Your task to perform on an android device: toggle priority inbox in the gmail app Image 0: 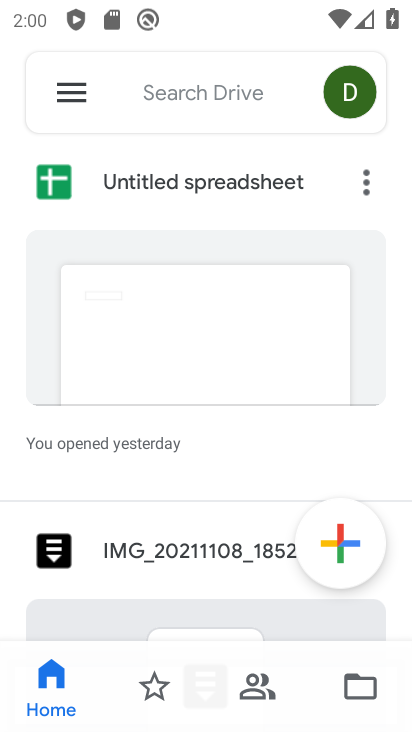
Step 0: press home button
Your task to perform on an android device: toggle priority inbox in the gmail app Image 1: 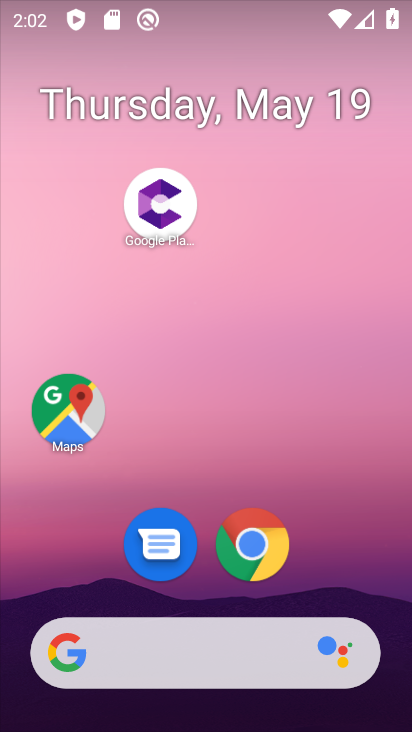
Step 1: drag from (231, 671) to (263, 300)
Your task to perform on an android device: toggle priority inbox in the gmail app Image 2: 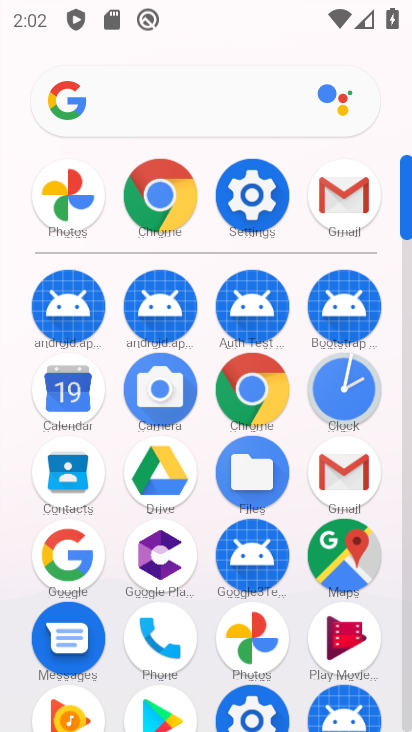
Step 2: click (359, 489)
Your task to perform on an android device: toggle priority inbox in the gmail app Image 3: 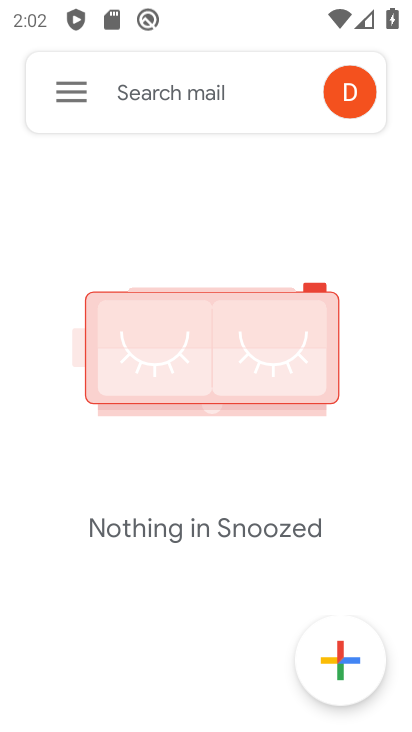
Step 3: click (92, 83)
Your task to perform on an android device: toggle priority inbox in the gmail app Image 4: 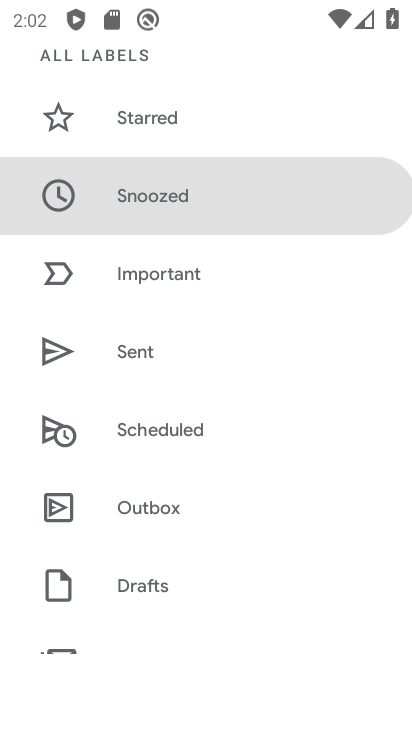
Step 4: drag from (194, 537) to (267, 172)
Your task to perform on an android device: toggle priority inbox in the gmail app Image 5: 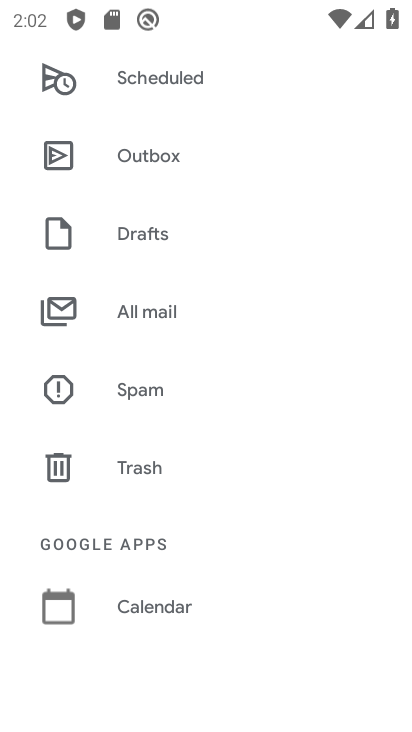
Step 5: drag from (188, 511) to (275, 189)
Your task to perform on an android device: toggle priority inbox in the gmail app Image 6: 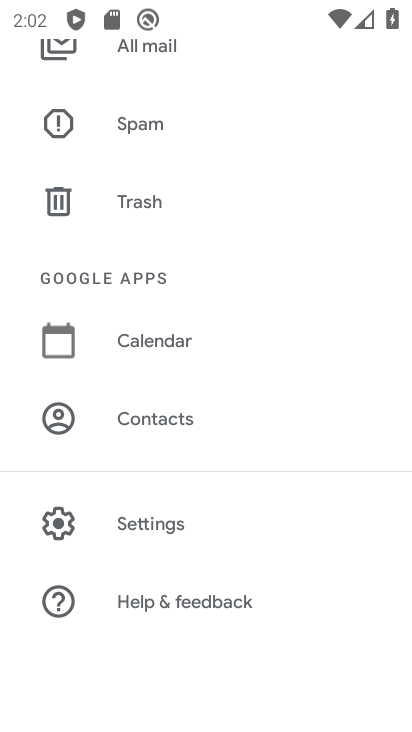
Step 6: click (148, 521)
Your task to perform on an android device: toggle priority inbox in the gmail app Image 7: 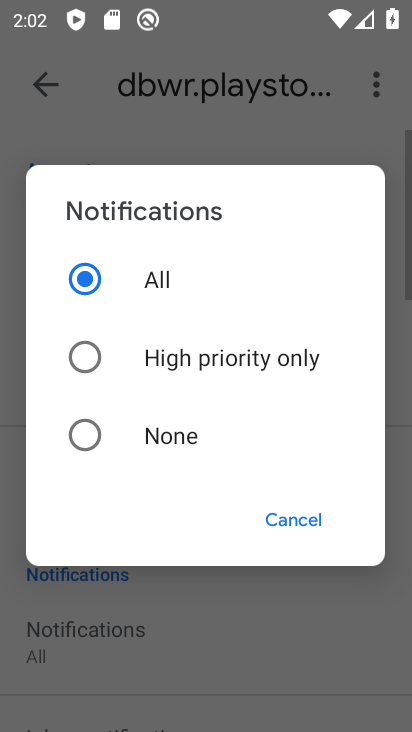
Step 7: click (277, 522)
Your task to perform on an android device: toggle priority inbox in the gmail app Image 8: 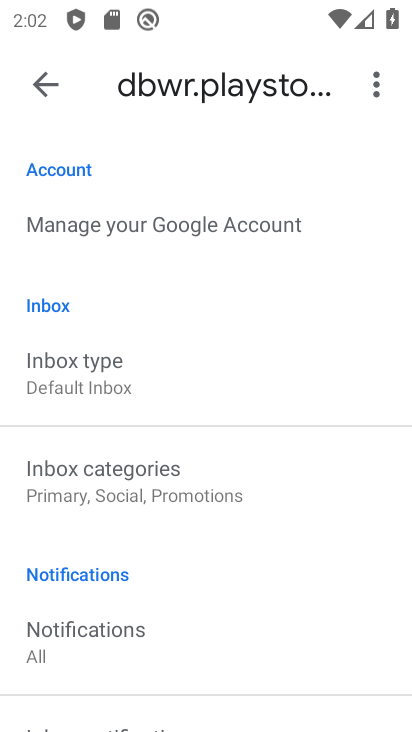
Step 8: drag from (253, 548) to (339, 205)
Your task to perform on an android device: toggle priority inbox in the gmail app Image 9: 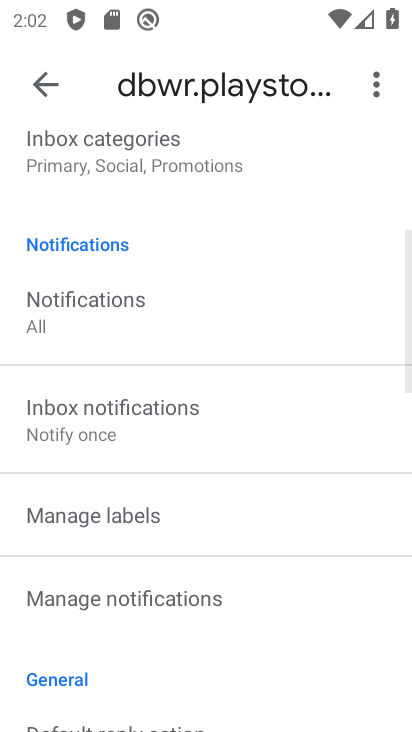
Step 9: drag from (231, 583) to (290, 214)
Your task to perform on an android device: toggle priority inbox in the gmail app Image 10: 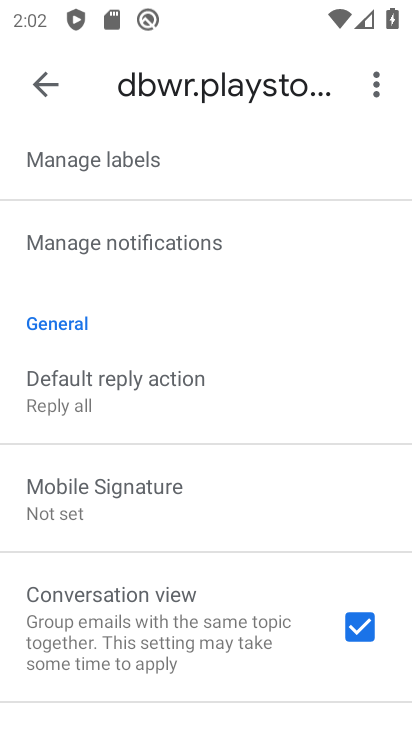
Step 10: drag from (216, 550) to (300, 218)
Your task to perform on an android device: toggle priority inbox in the gmail app Image 11: 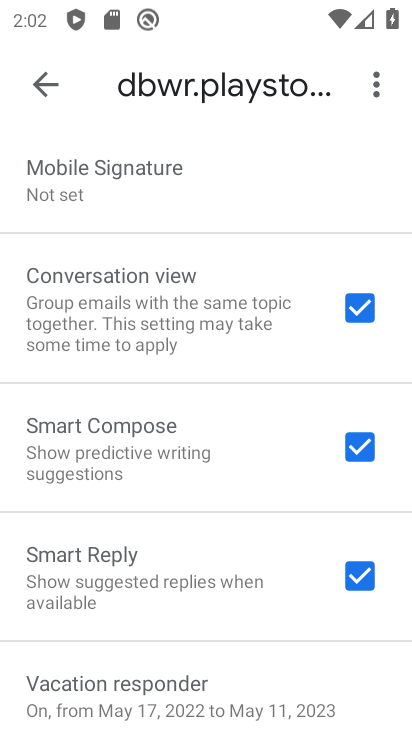
Step 11: drag from (160, 634) to (174, 572)
Your task to perform on an android device: toggle priority inbox in the gmail app Image 12: 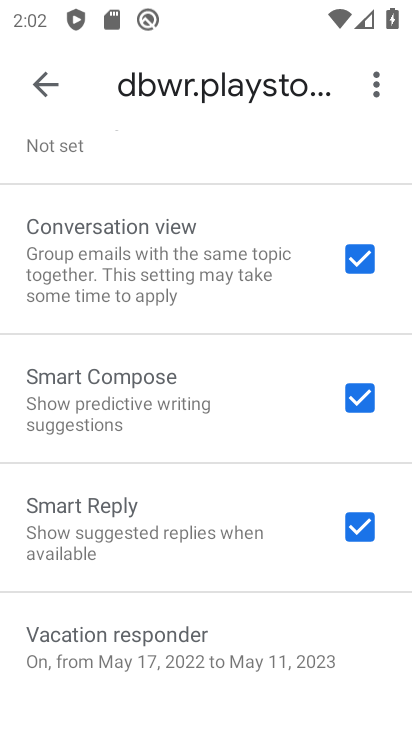
Step 12: drag from (209, 293) to (222, 729)
Your task to perform on an android device: toggle priority inbox in the gmail app Image 13: 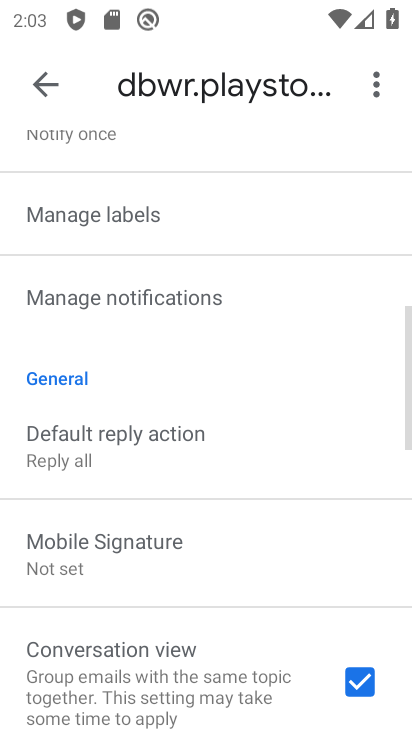
Step 13: drag from (241, 309) to (232, 633)
Your task to perform on an android device: toggle priority inbox in the gmail app Image 14: 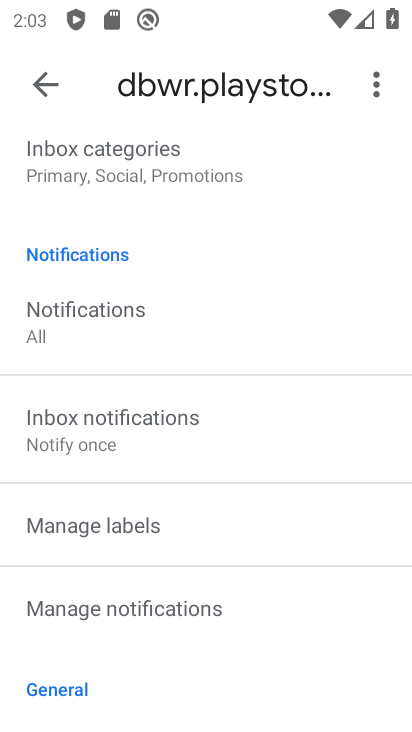
Step 14: drag from (106, 208) to (136, 315)
Your task to perform on an android device: toggle priority inbox in the gmail app Image 15: 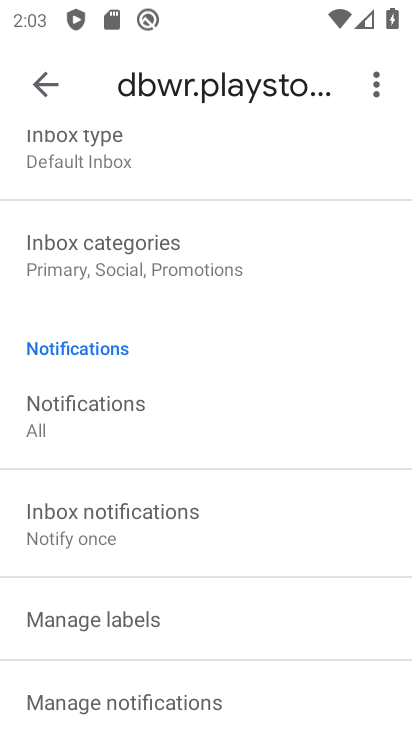
Step 15: click (114, 174)
Your task to perform on an android device: toggle priority inbox in the gmail app Image 16: 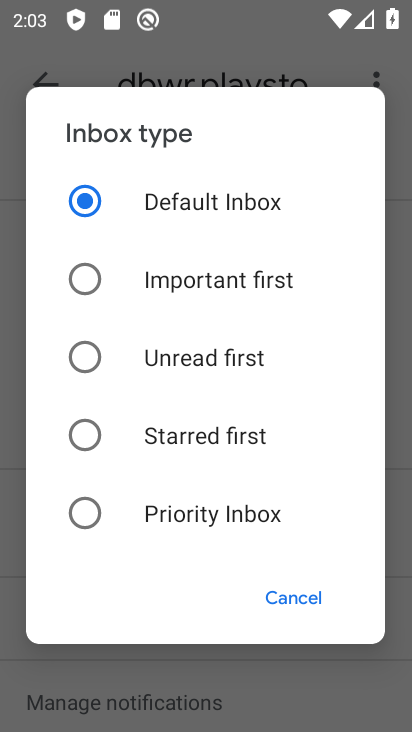
Step 16: task complete